Your task to perform on an android device: Clear the cart on costco.com. Search for "dell xps" on costco.com, select the first entry, and add it to the cart. Image 0: 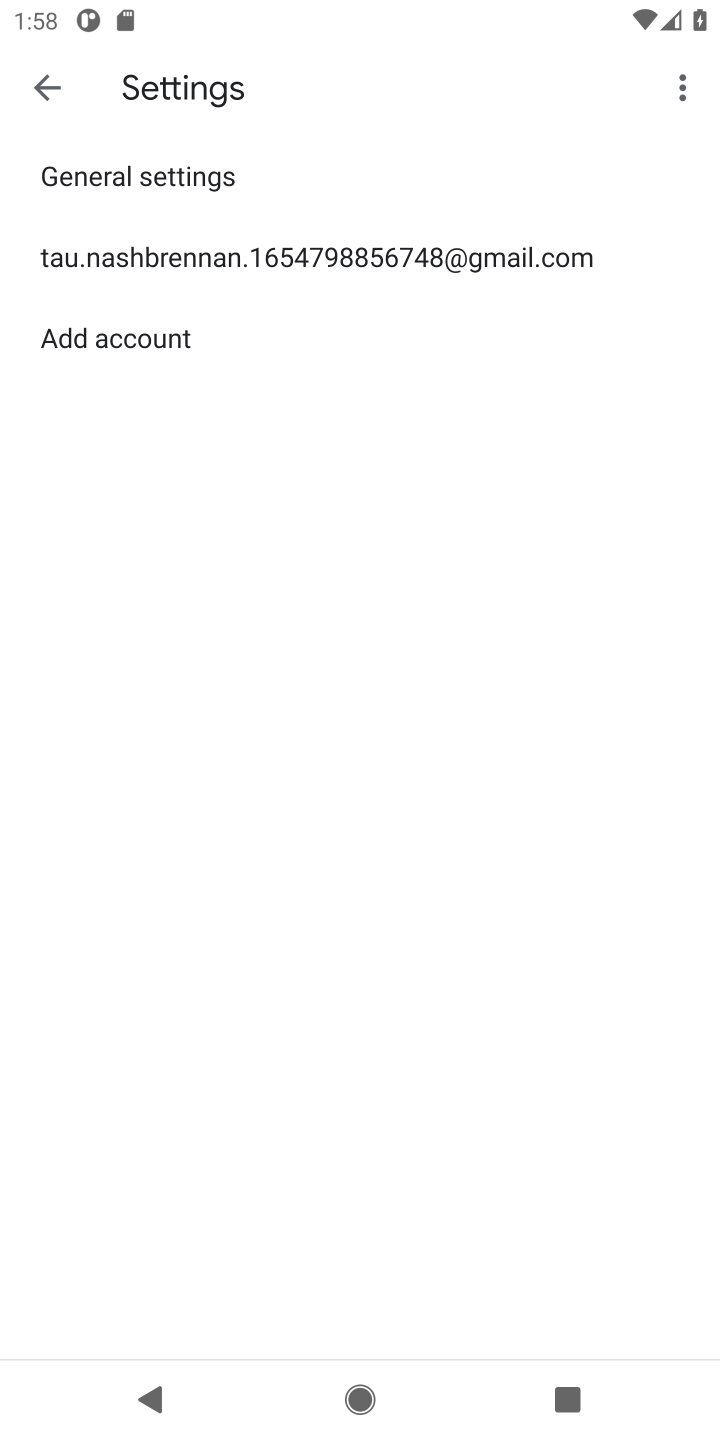
Step 0: press home button
Your task to perform on an android device: Clear the cart on costco.com. Search for "dell xps" on costco.com, select the first entry, and add it to the cart. Image 1: 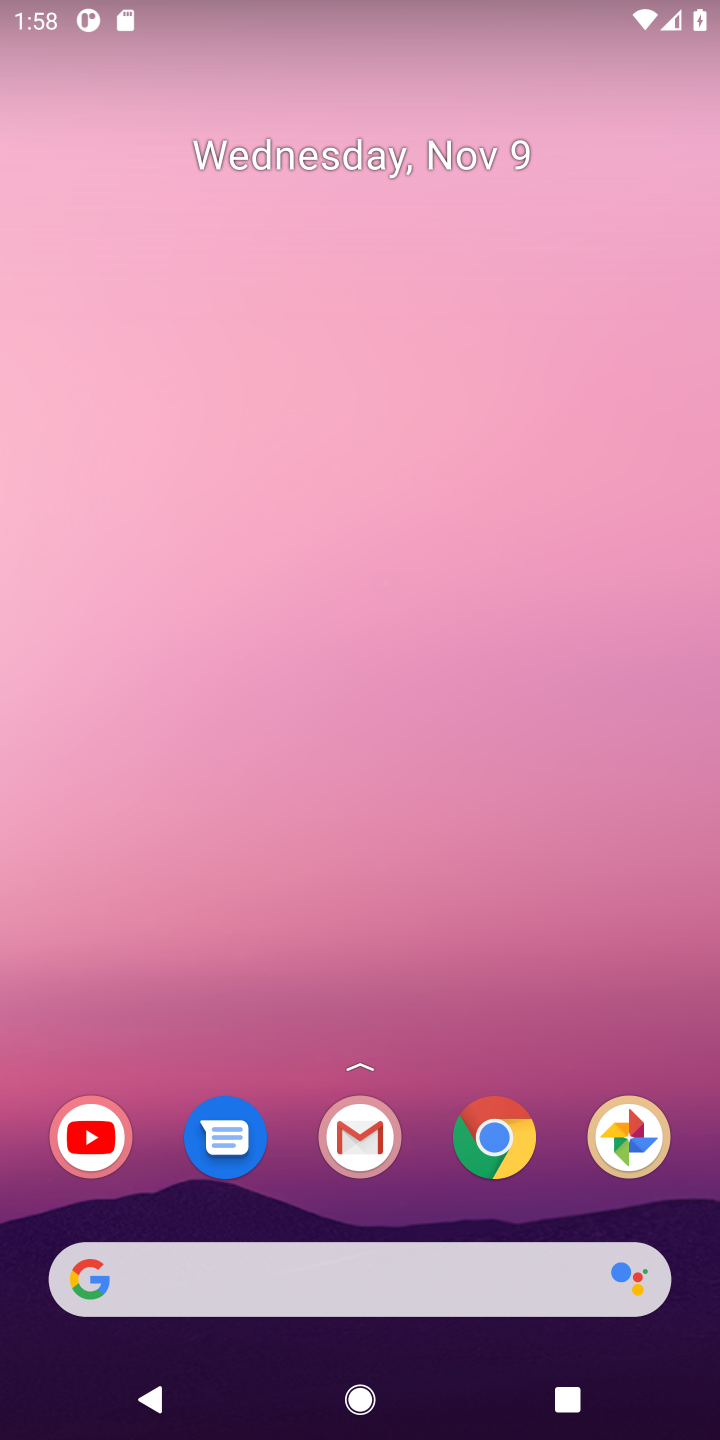
Step 1: drag from (204, 923) to (202, 433)
Your task to perform on an android device: Clear the cart on costco.com. Search for "dell xps" on costco.com, select the first entry, and add it to the cart. Image 2: 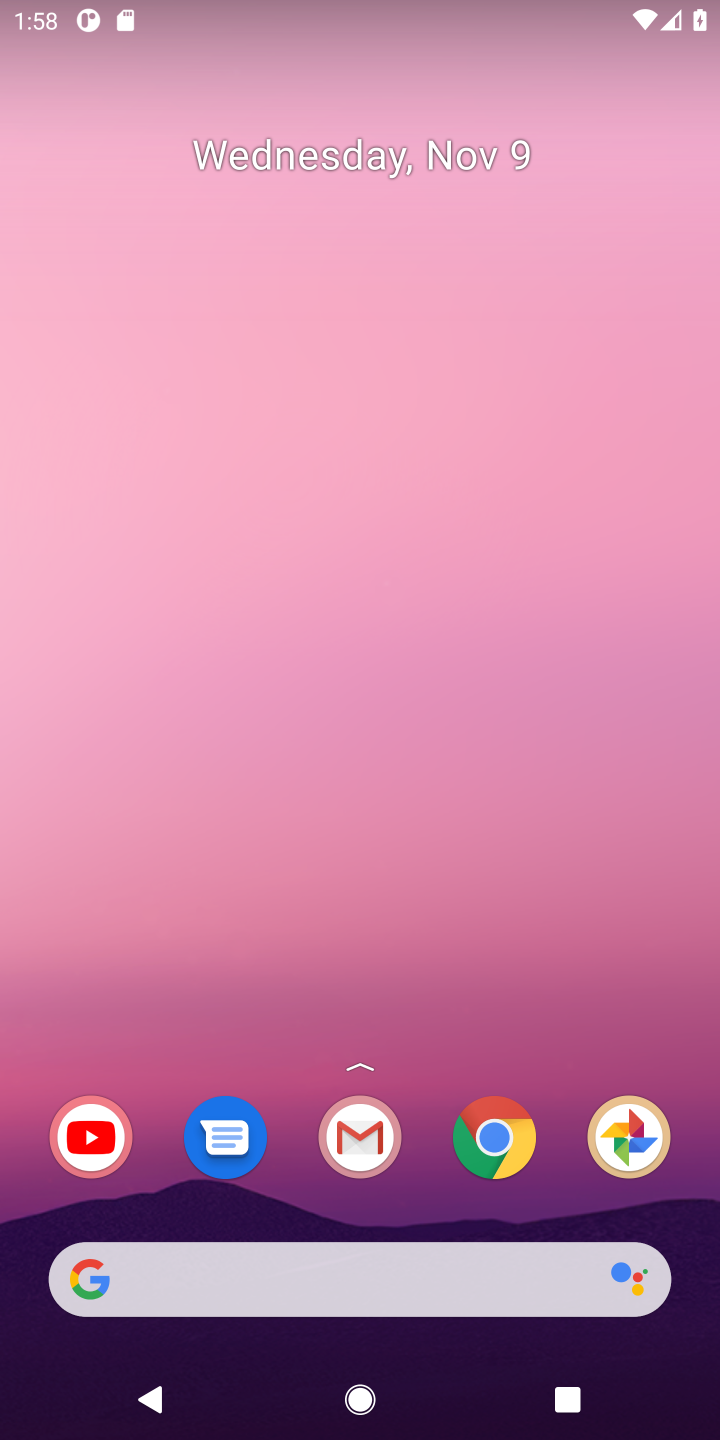
Step 2: click (513, 1110)
Your task to perform on an android device: Clear the cart on costco.com. Search for "dell xps" on costco.com, select the first entry, and add it to the cart. Image 3: 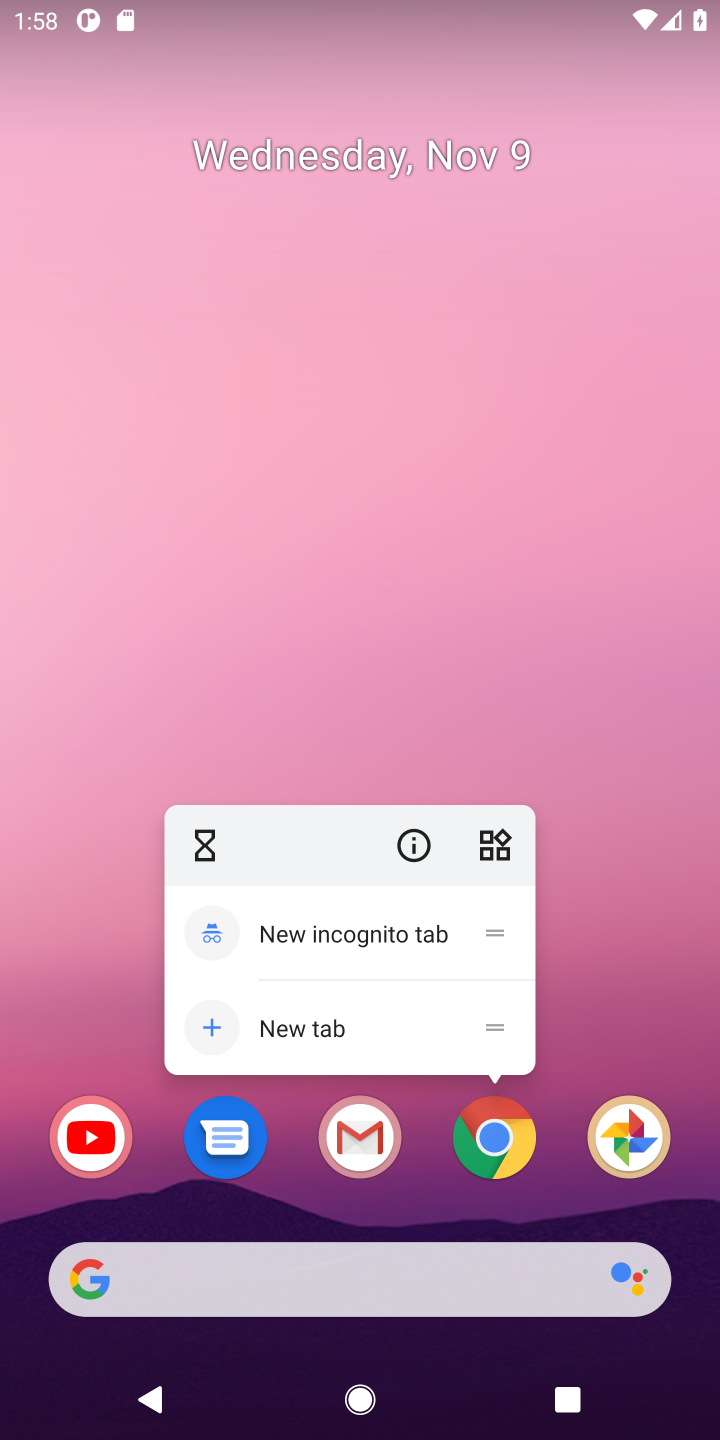
Step 3: click (512, 1095)
Your task to perform on an android device: Clear the cart on costco.com. Search for "dell xps" on costco.com, select the first entry, and add it to the cart. Image 4: 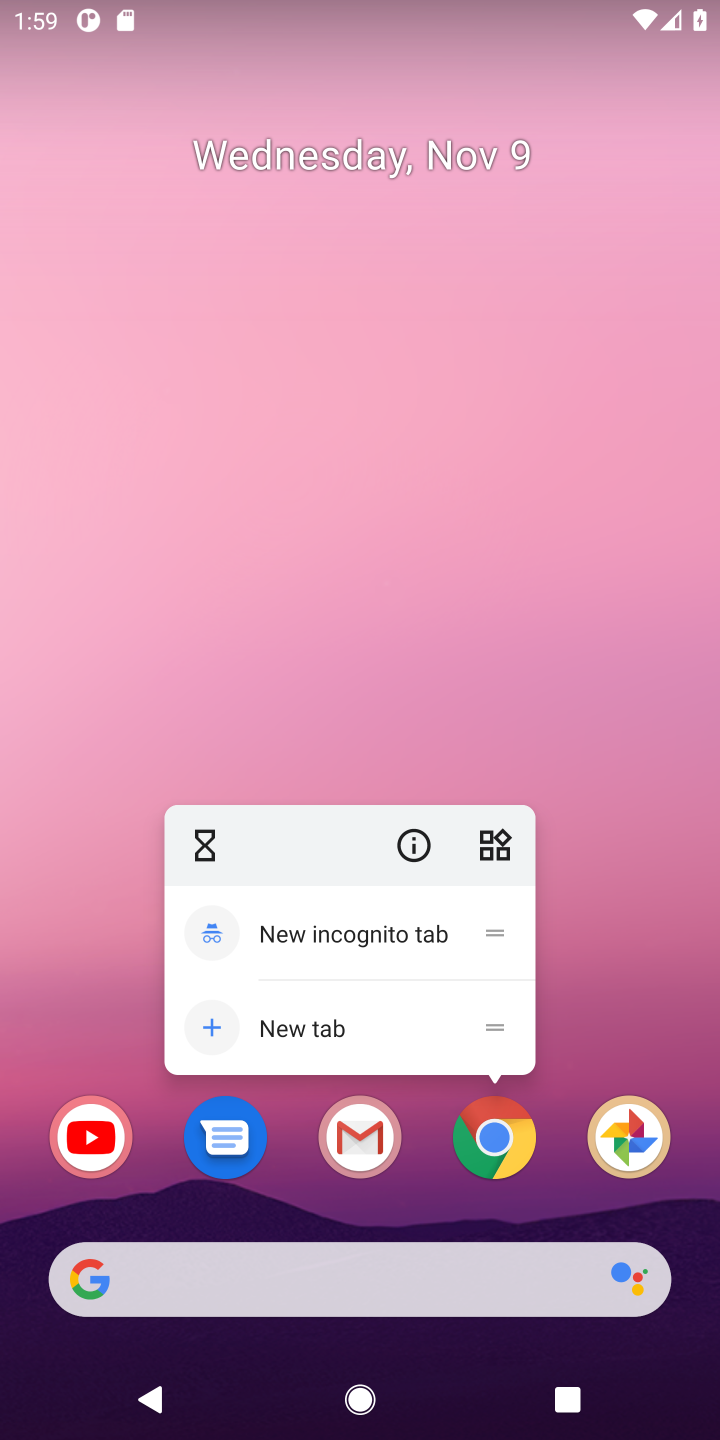
Step 4: click (513, 1155)
Your task to perform on an android device: Clear the cart on costco.com. Search for "dell xps" on costco.com, select the first entry, and add it to the cart. Image 5: 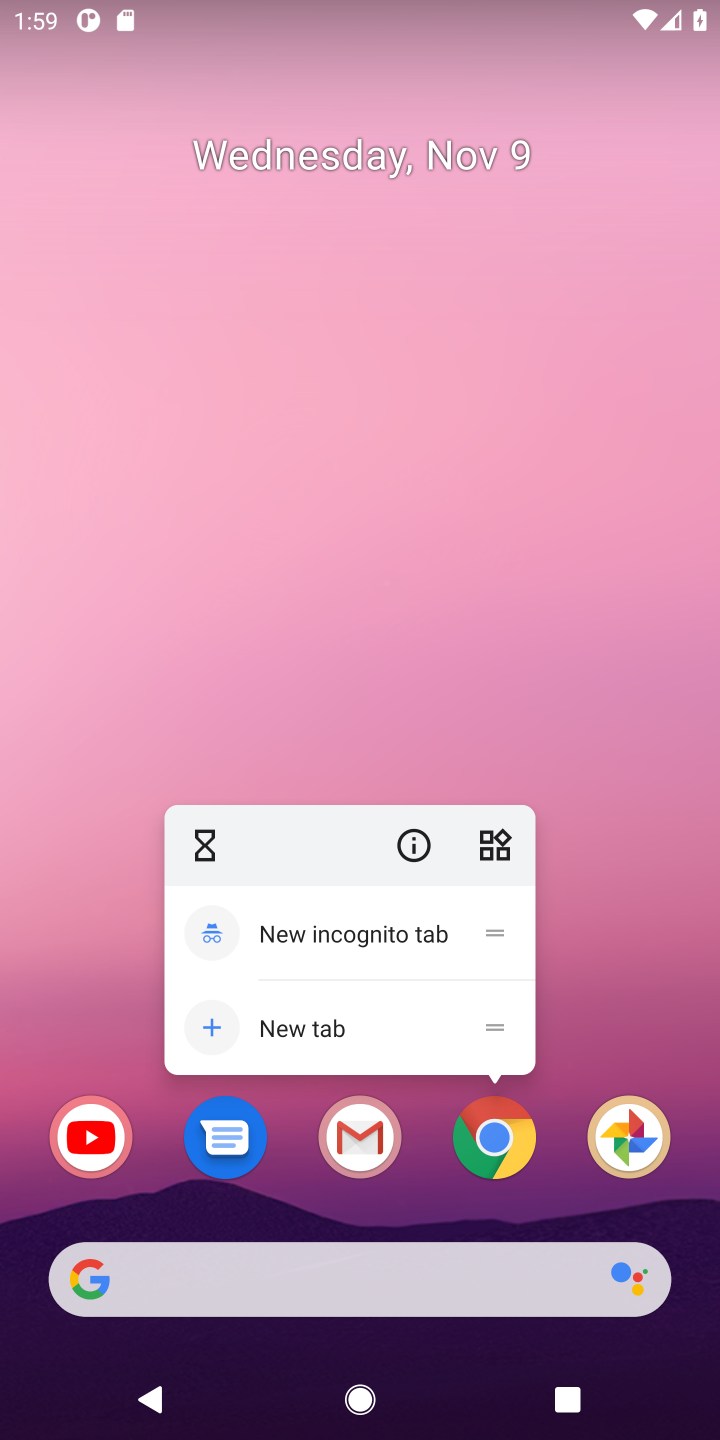
Step 5: click (513, 1151)
Your task to perform on an android device: Clear the cart on costco.com. Search for "dell xps" on costco.com, select the first entry, and add it to the cart. Image 6: 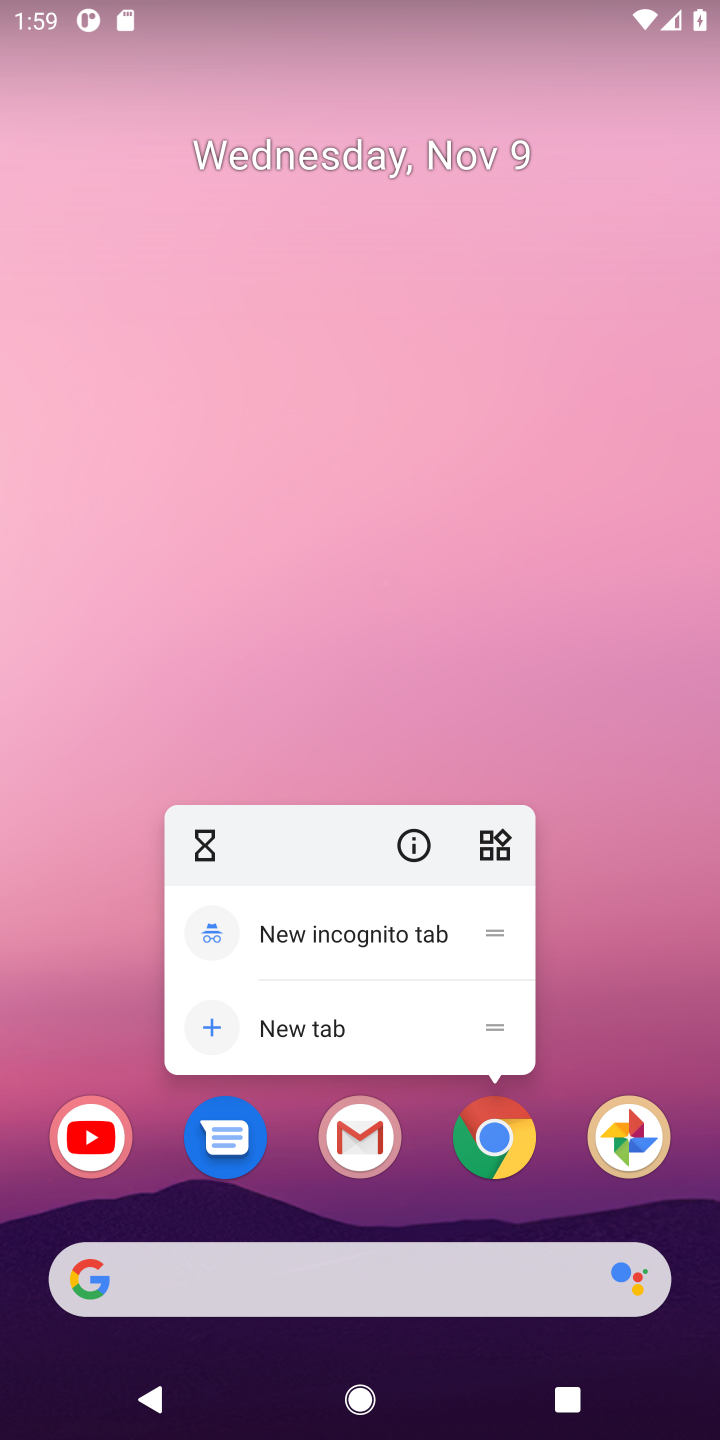
Step 6: click (486, 1150)
Your task to perform on an android device: Clear the cart on costco.com. Search for "dell xps" on costco.com, select the first entry, and add it to the cart. Image 7: 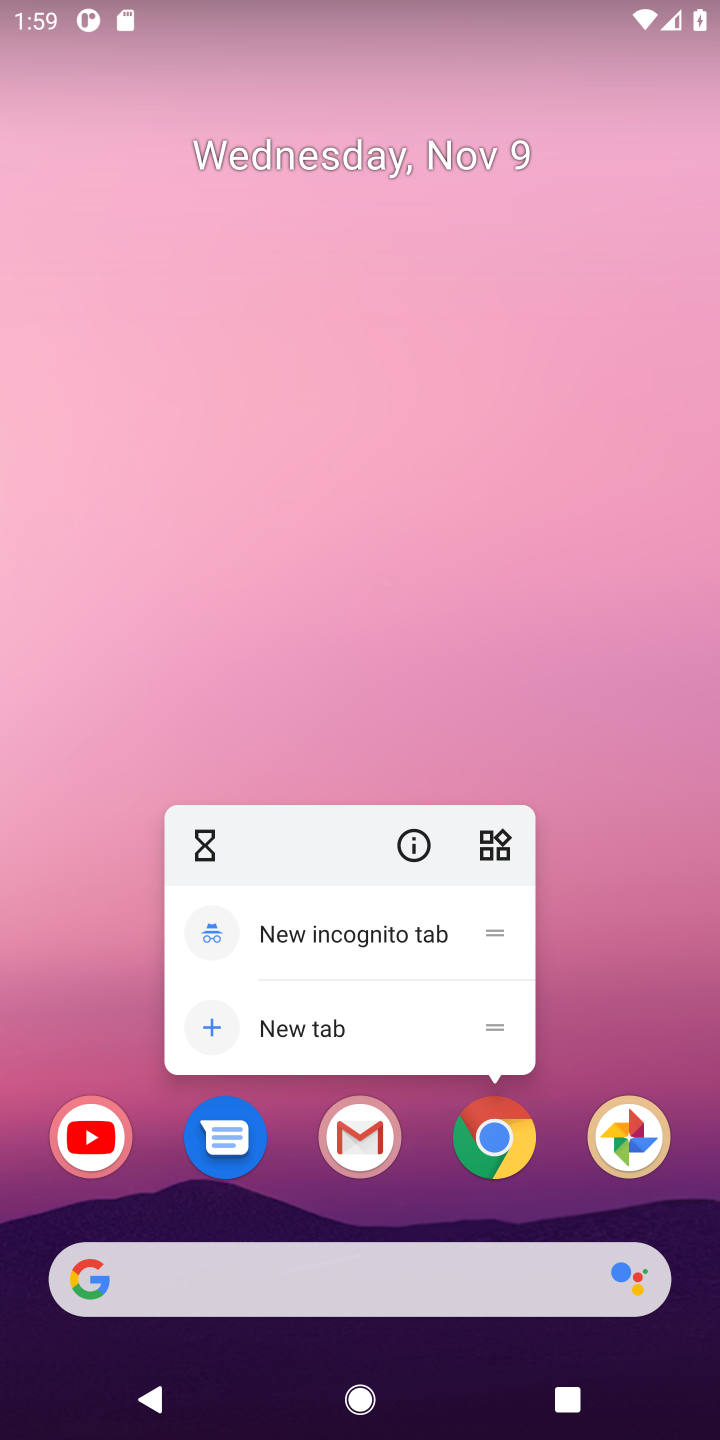
Step 7: click (486, 1148)
Your task to perform on an android device: Clear the cart on costco.com. Search for "dell xps" on costco.com, select the first entry, and add it to the cart. Image 8: 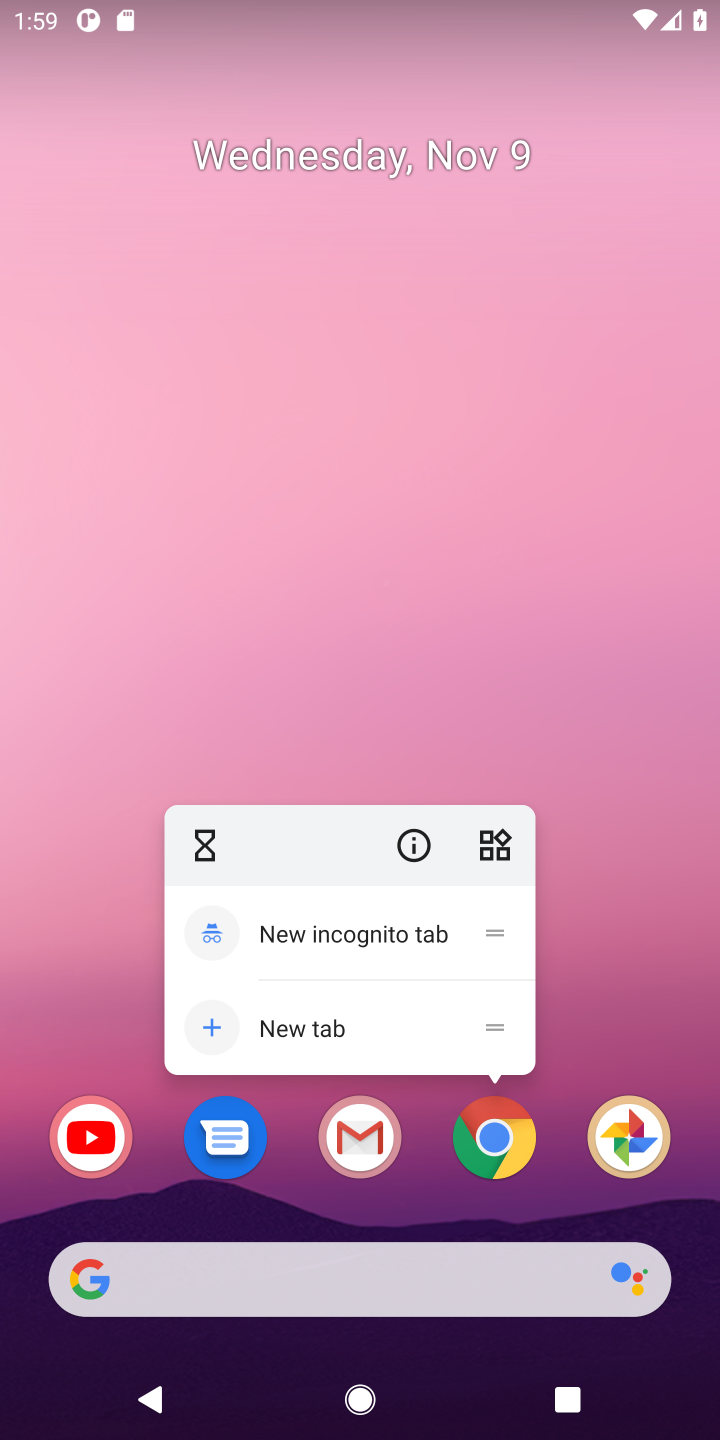
Step 8: click (486, 1148)
Your task to perform on an android device: Clear the cart on costco.com. Search for "dell xps" on costco.com, select the first entry, and add it to the cart. Image 9: 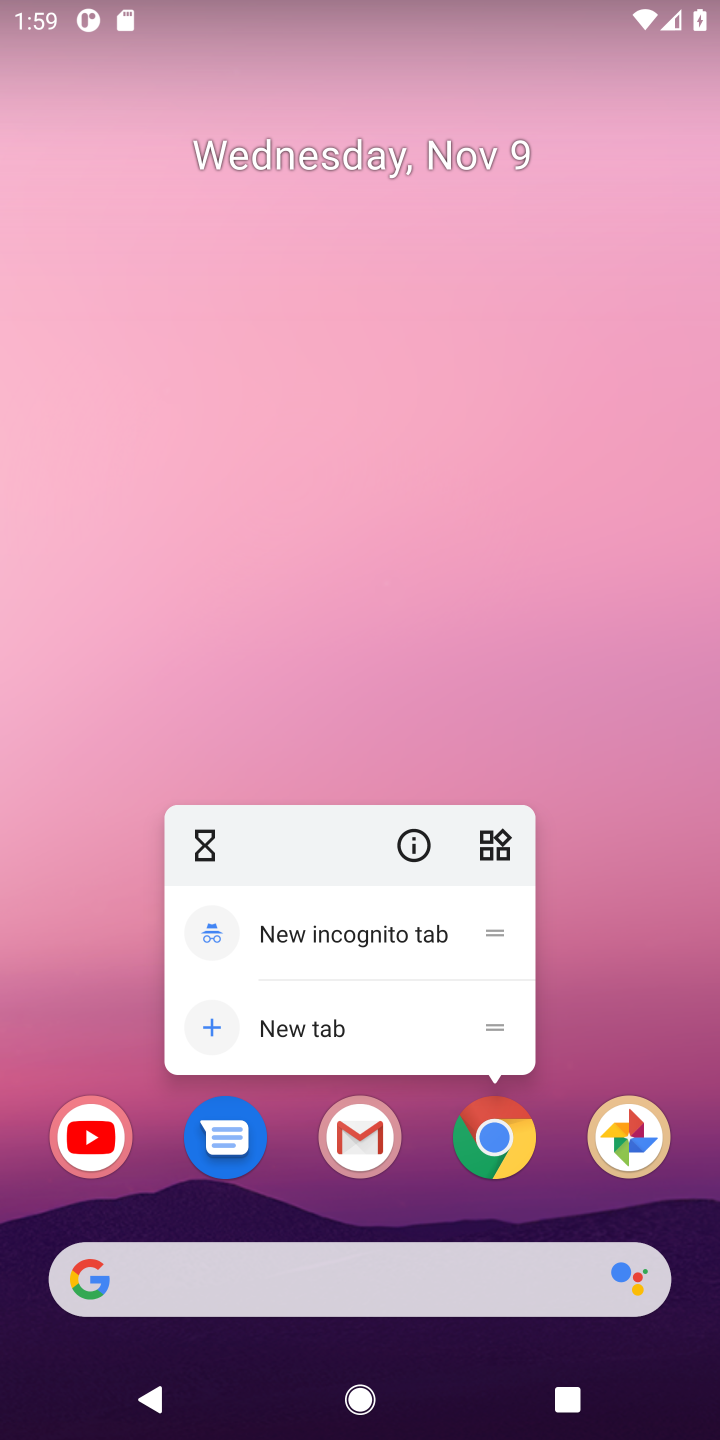
Step 9: click (486, 1148)
Your task to perform on an android device: Clear the cart on costco.com. Search for "dell xps" on costco.com, select the first entry, and add it to the cart. Image 10: 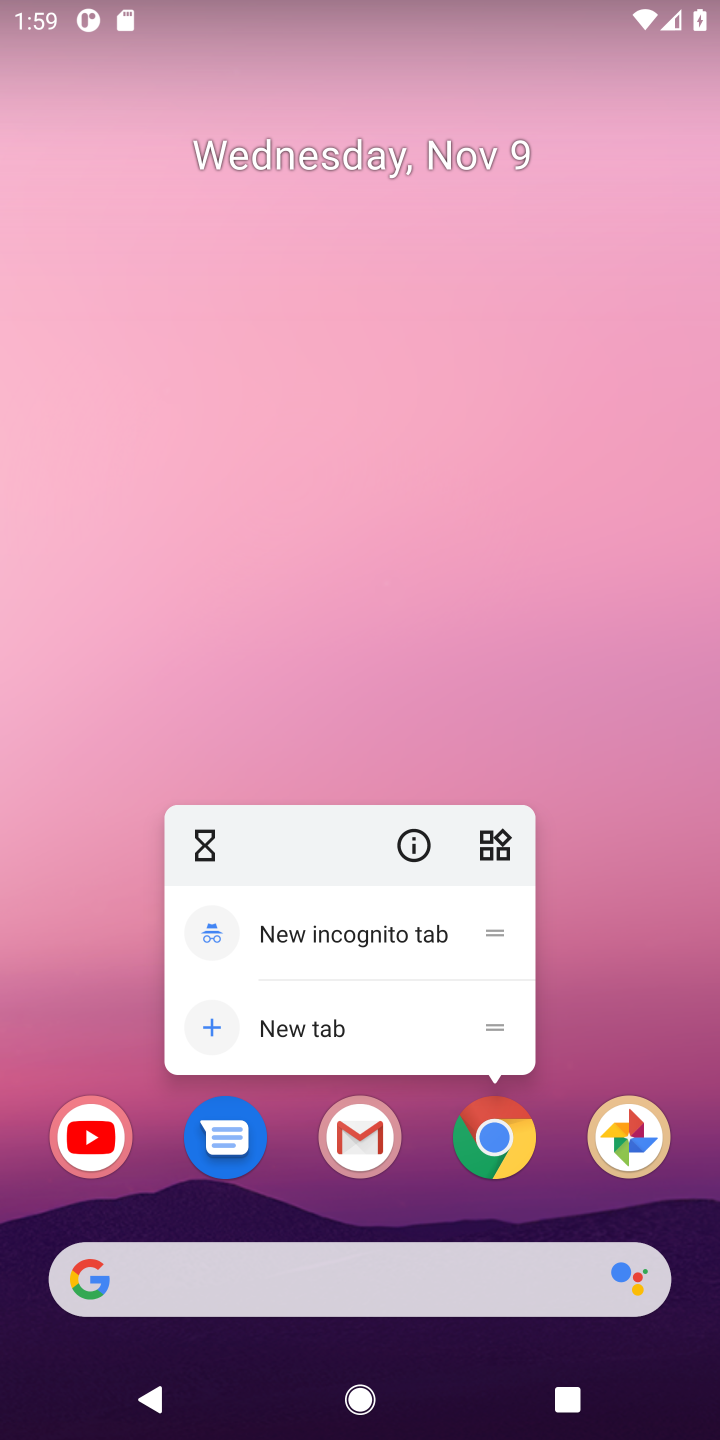
Step 10: click (486, 1148)
Your task to perform on an android device: Clear the cart on costco.com. Search for "dell xps" on costco.com, select the first entry, and add it to the cart. Image 11: 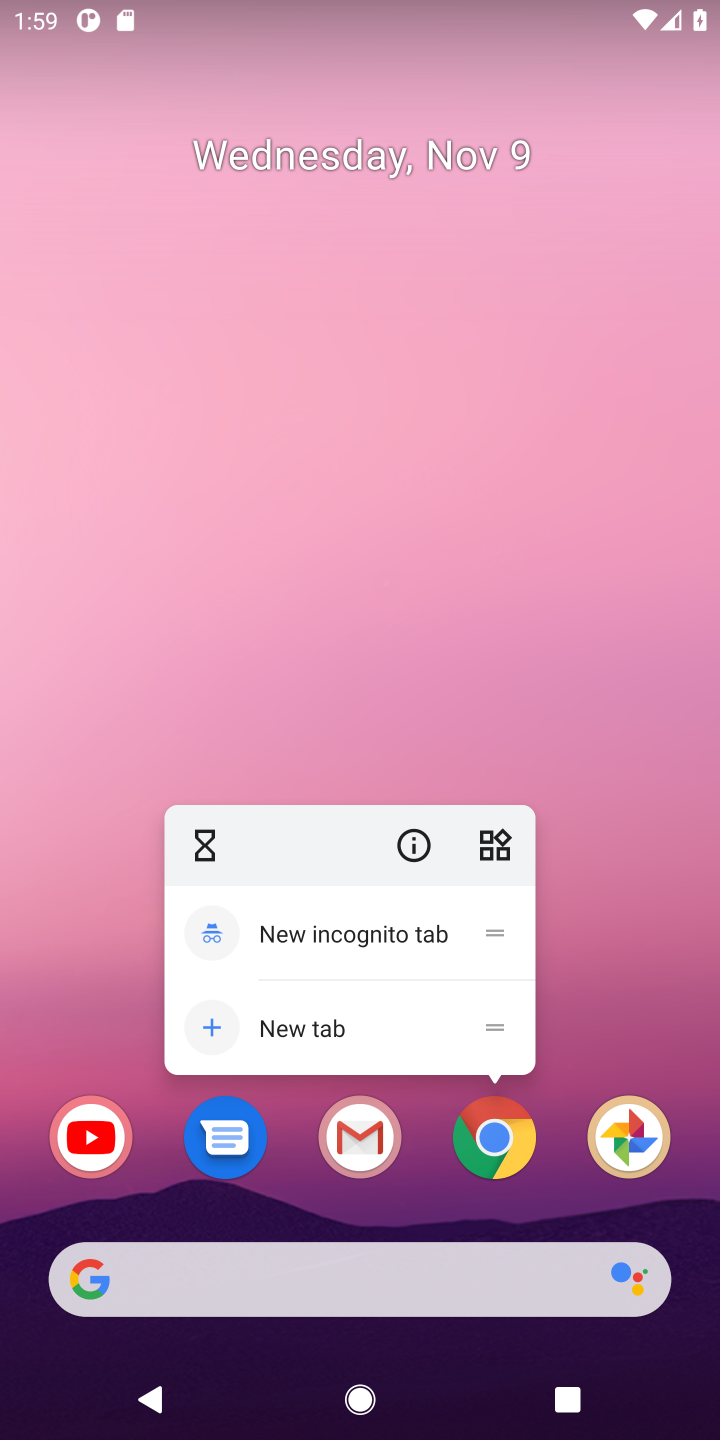
Step 11: click (486, 1148)
Your task to perform on an android device: Clear the cart on costco.com. Search for "dell xps" on costco.com, select the first entry, and add it to the cart. Image 12: 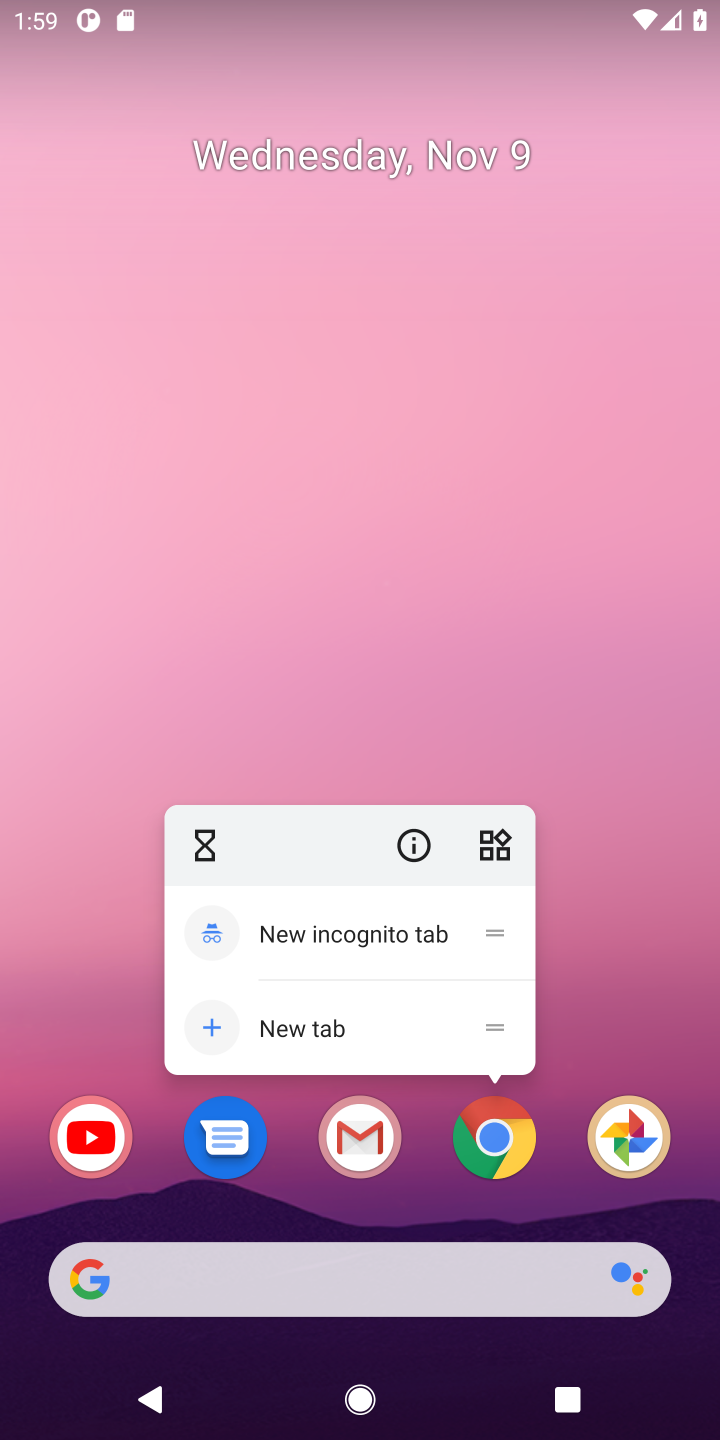
Step 12: drag from (518, 1003) to (523, 309)
Your task to perform on an android device: Clear the cart on costco.com. Search for "dell xps" on costco.com, select the first entry, and add it to the cart. Image 13: 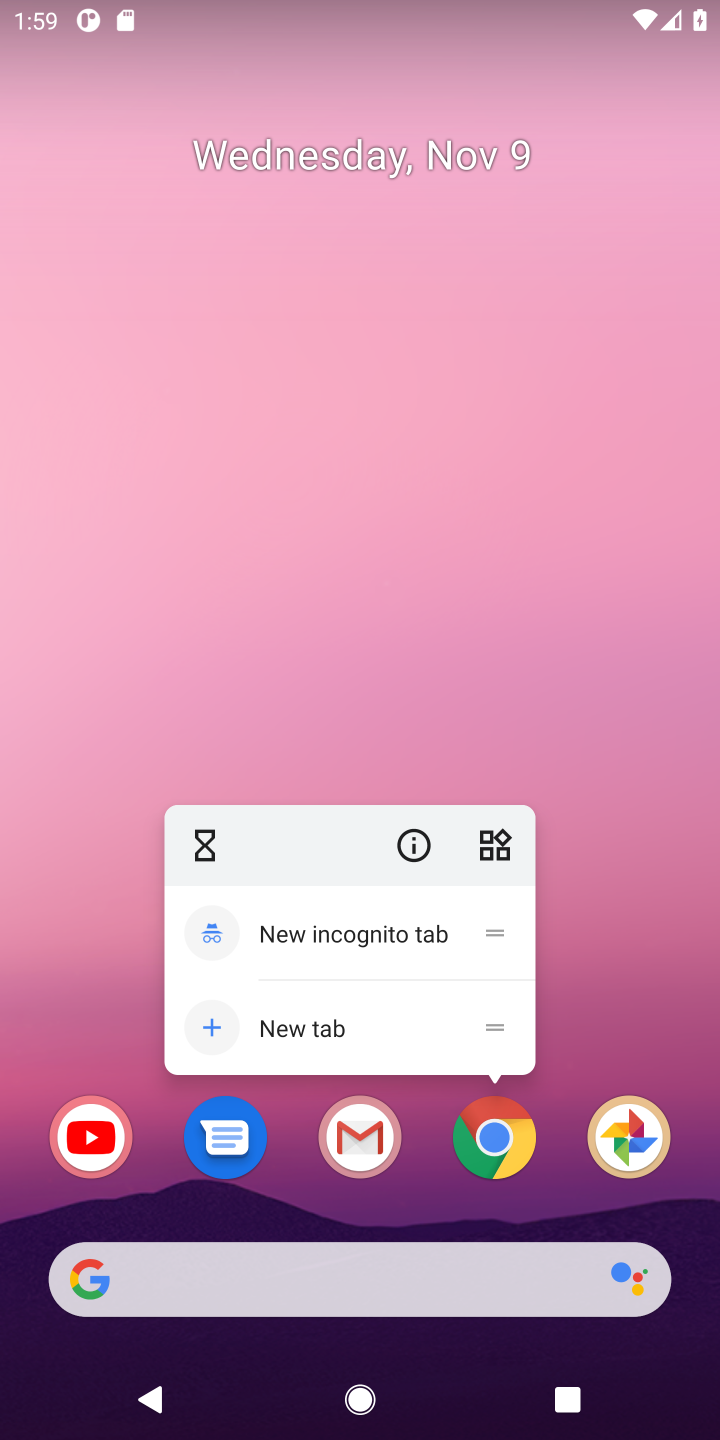
Step 13: click (499, 480)
Your task to perform on an android device: Clear the cart on costco.com. Search for "dell xps" on costco.com, select the first entry, and add it to the cart. Image 14: 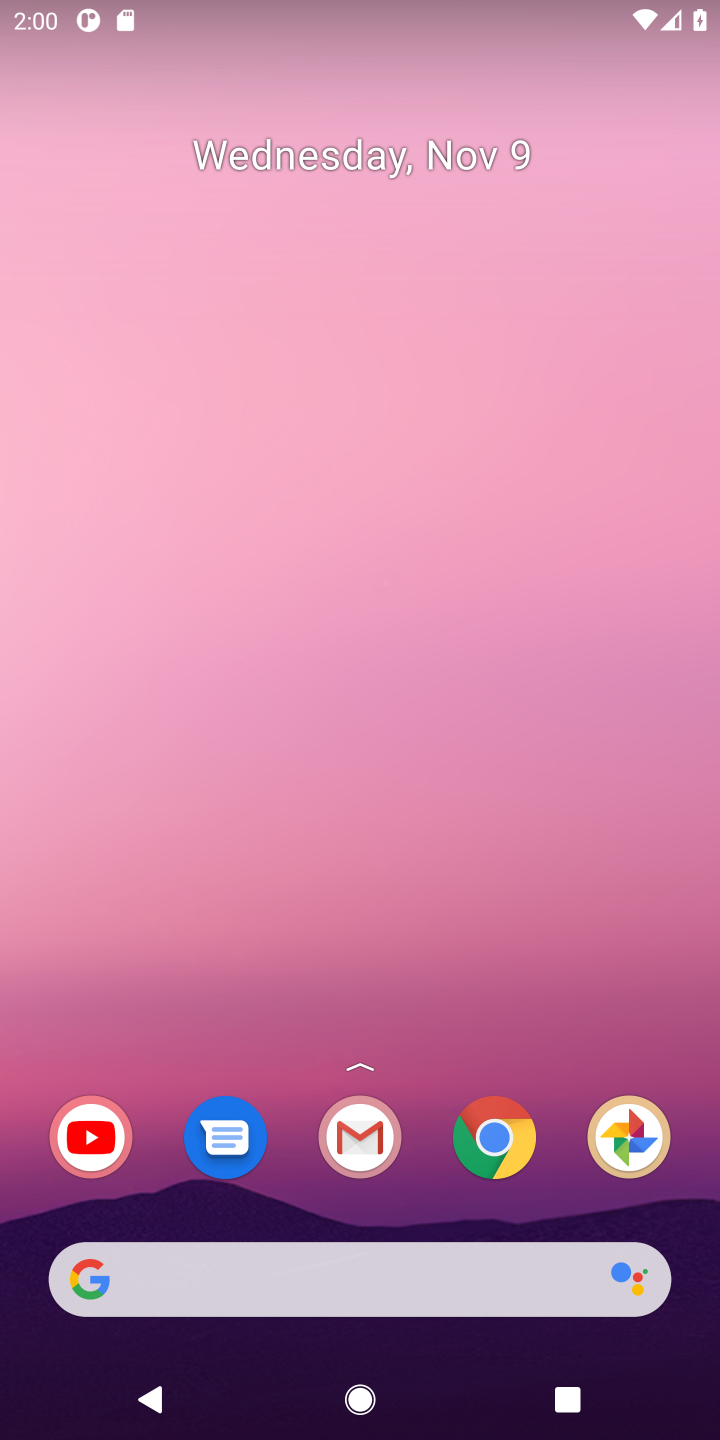
Step 14: drag from (402, 1107) to (403, 133)
Your task to perform on an android device: Clear the cart on costco.com. Search for "dell xps" on costco.com, select the first entry, and add it to the cart. Image 15: 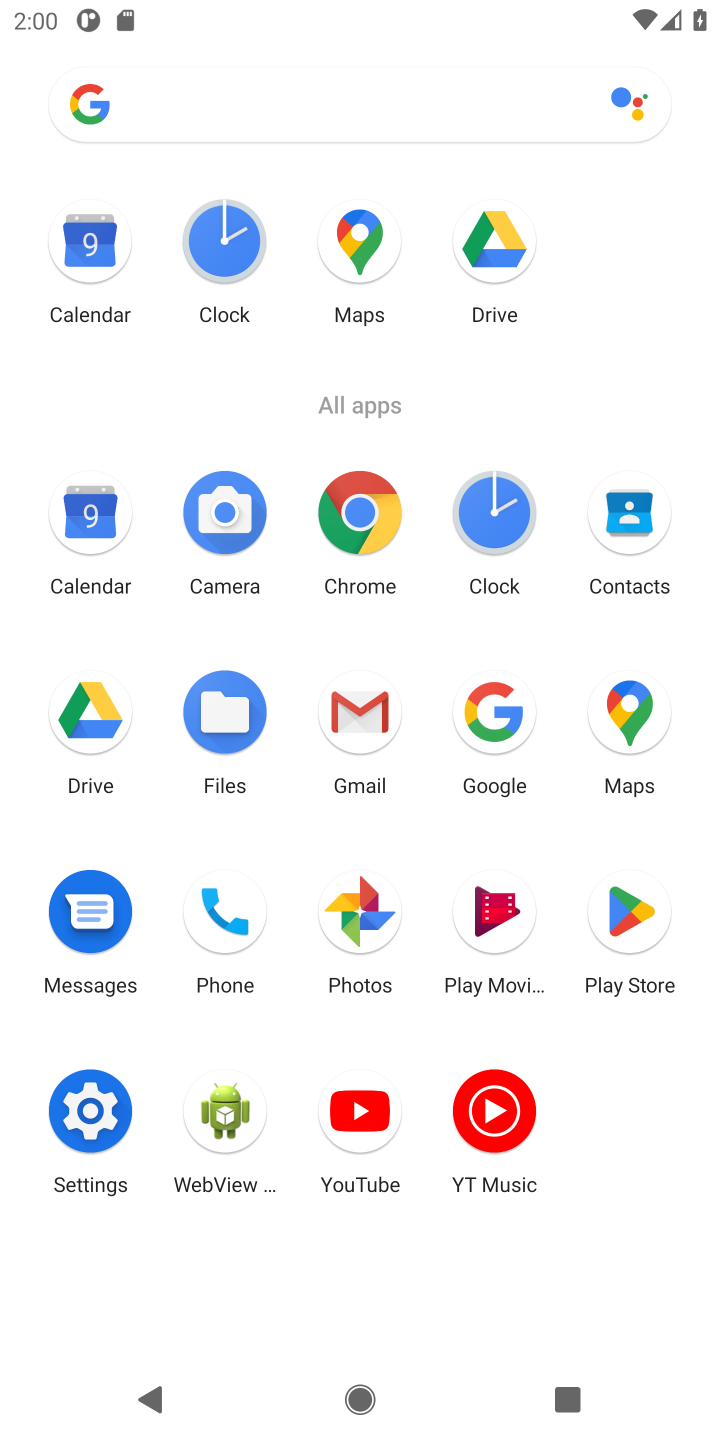
Step 15: click (355, 514)
Your task to perform on an android device: Clear the cart on costco.com. Search for "dell xps" on costco.com, select the first entry, and add it to the cart. Image 16: 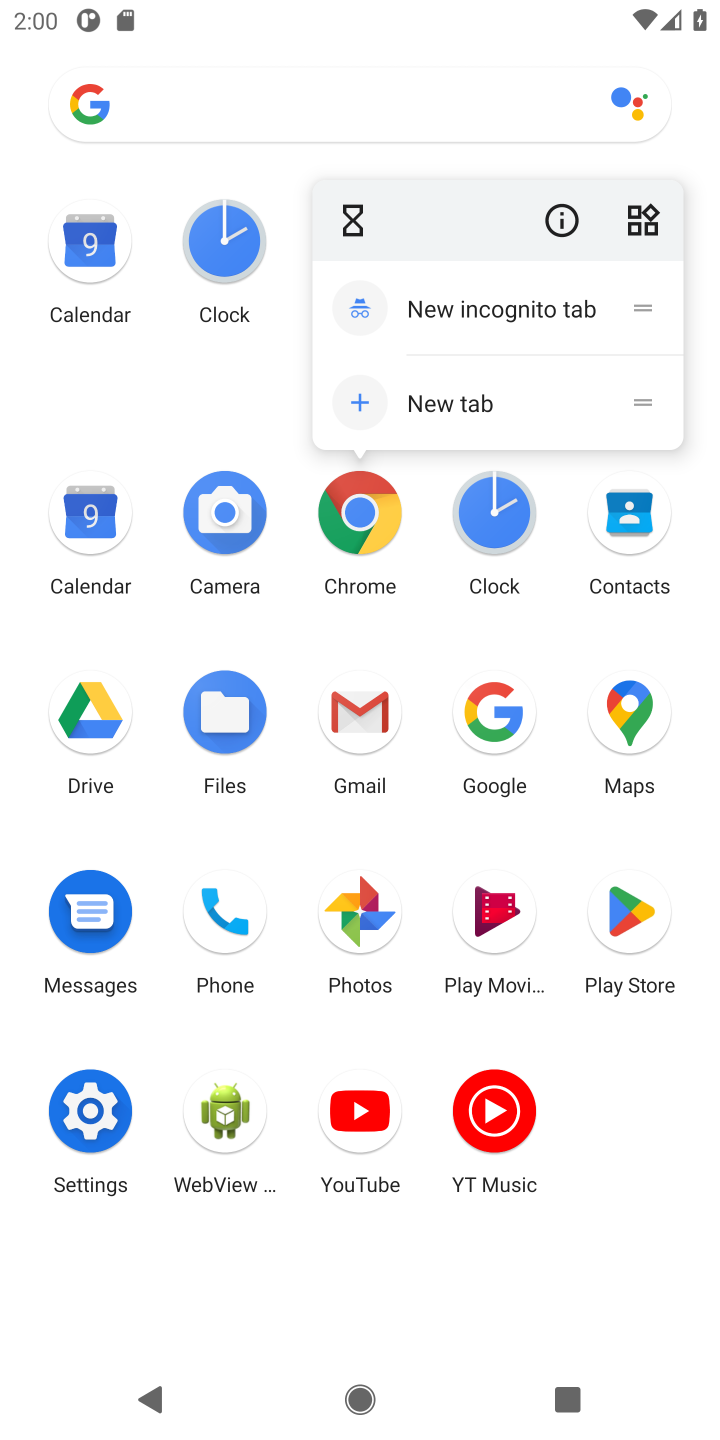
Step 16: click (354, 509)
Your task to perform on an android device: Clear the cart on costco.com. Search for "dell xps" on costco.com, select the first entry, and add it to the cart. Image 17: 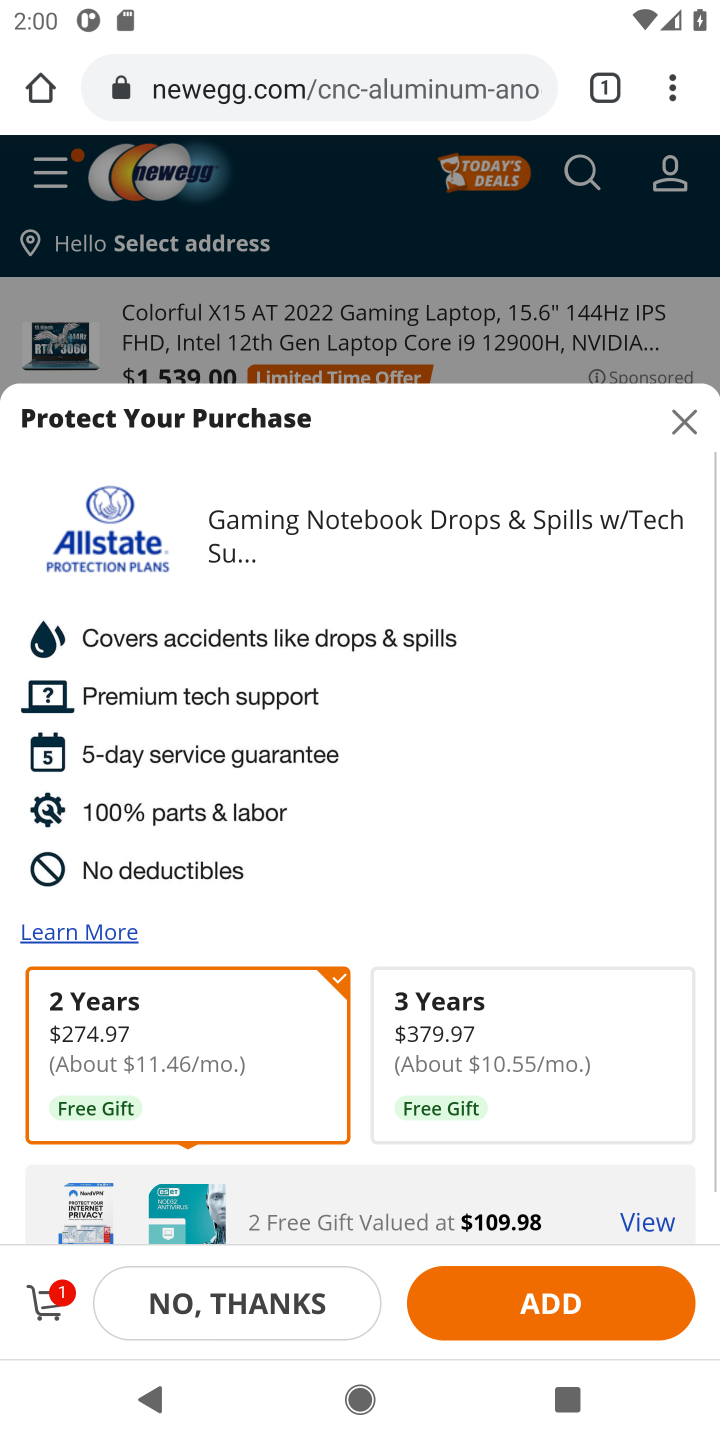
Step 17: click (214, 99)
Your task to perform on an android device: Clear the cart on costco.com. Search for "dell xps" on costco.com, select the first entry, and add it to the cart. Image 18: 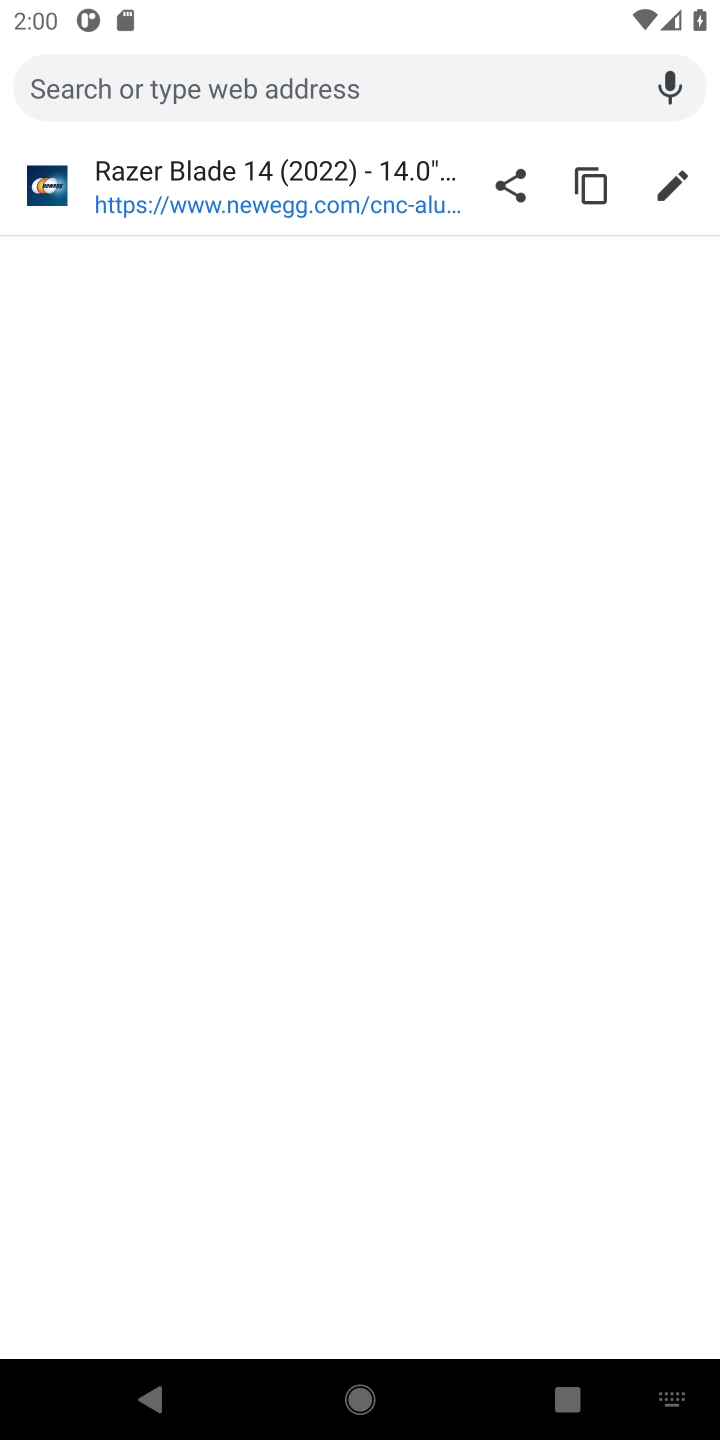
Step 18: type "costco.com"
Your task to perform on an android device: Clear the cart on costco.com. Search for "dell xps" on costco.com, select the first entry, and add it to the cart. Image 19: 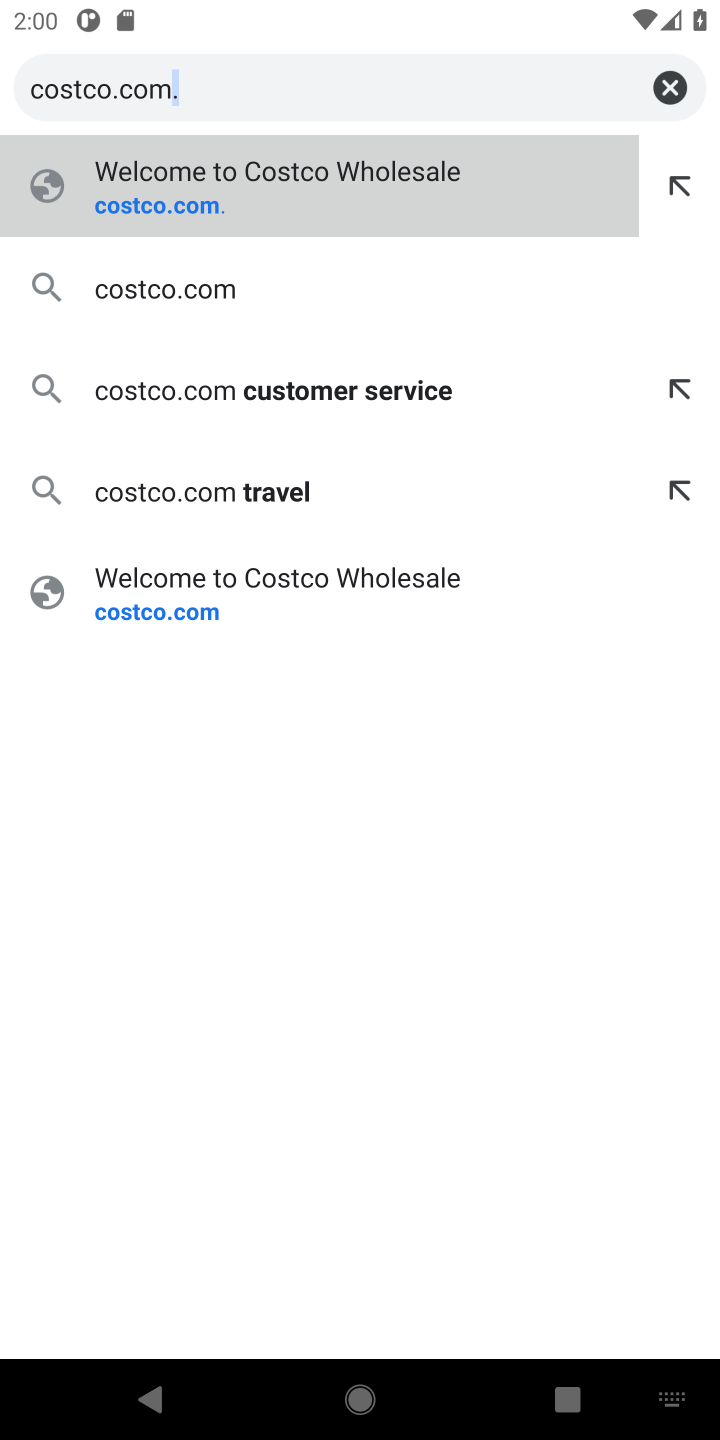
Step 19: press enter
Your task to perform on an android device: Clear the cart on costco.com. Search for "dell xps" on costco.com, select the first entry, and add it to the cart. Image 20: 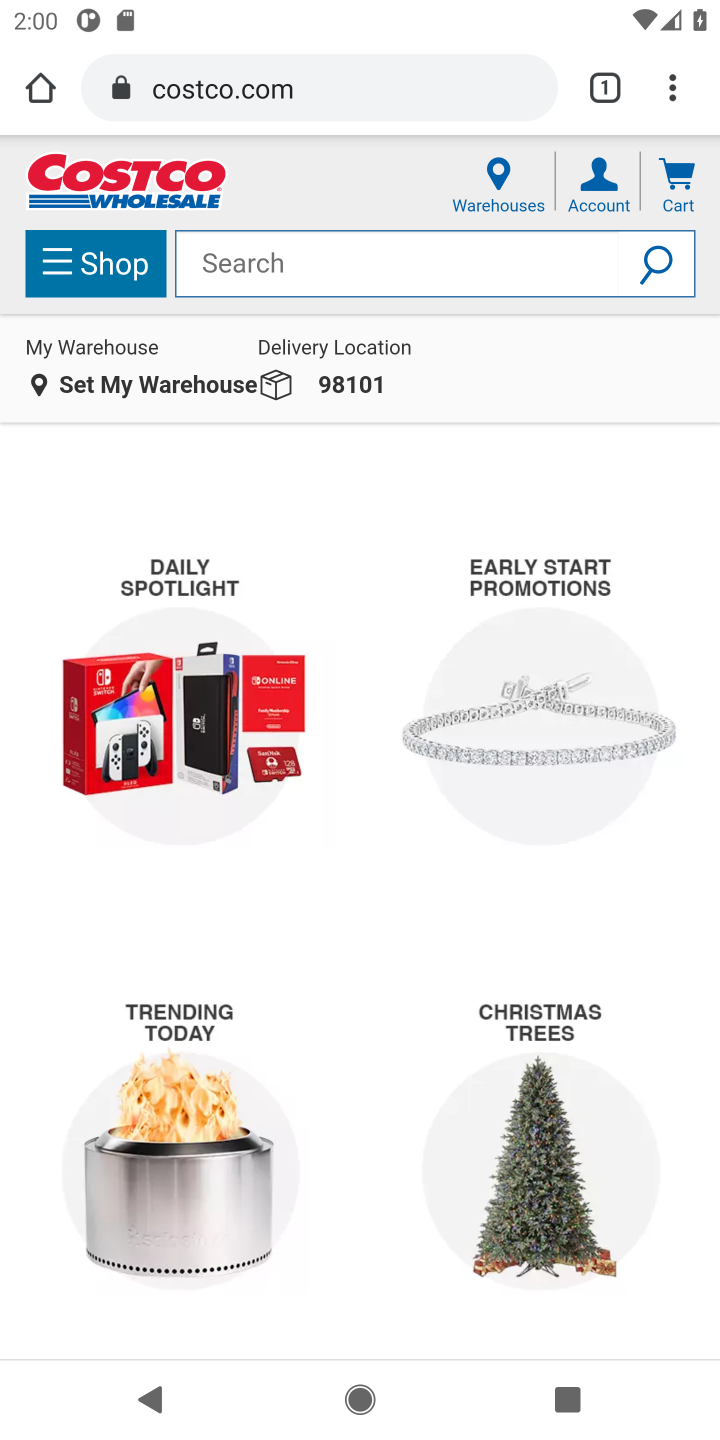
Step 20: click (195, 278)
Your task to perform on an android device: Clear the cart on costco.com. Search for "dell xps" on costco.com, select the first entry, and add it to the cart. Image 21: 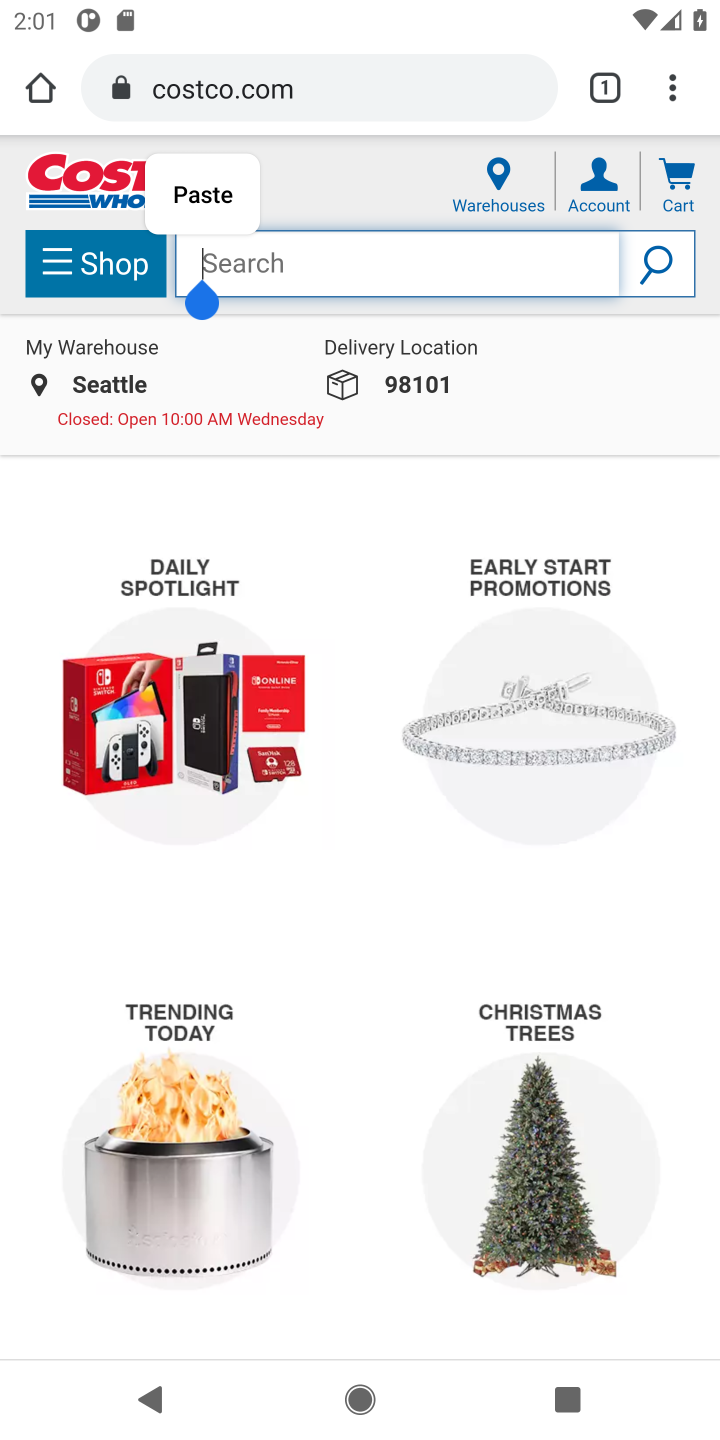
Step 21: type "dell xps"
Your task to perform on an android device: Clear the cart on costco.com. Search for "dell xps" on costco.com, select the first entry, and add it to the cart. Image 22: 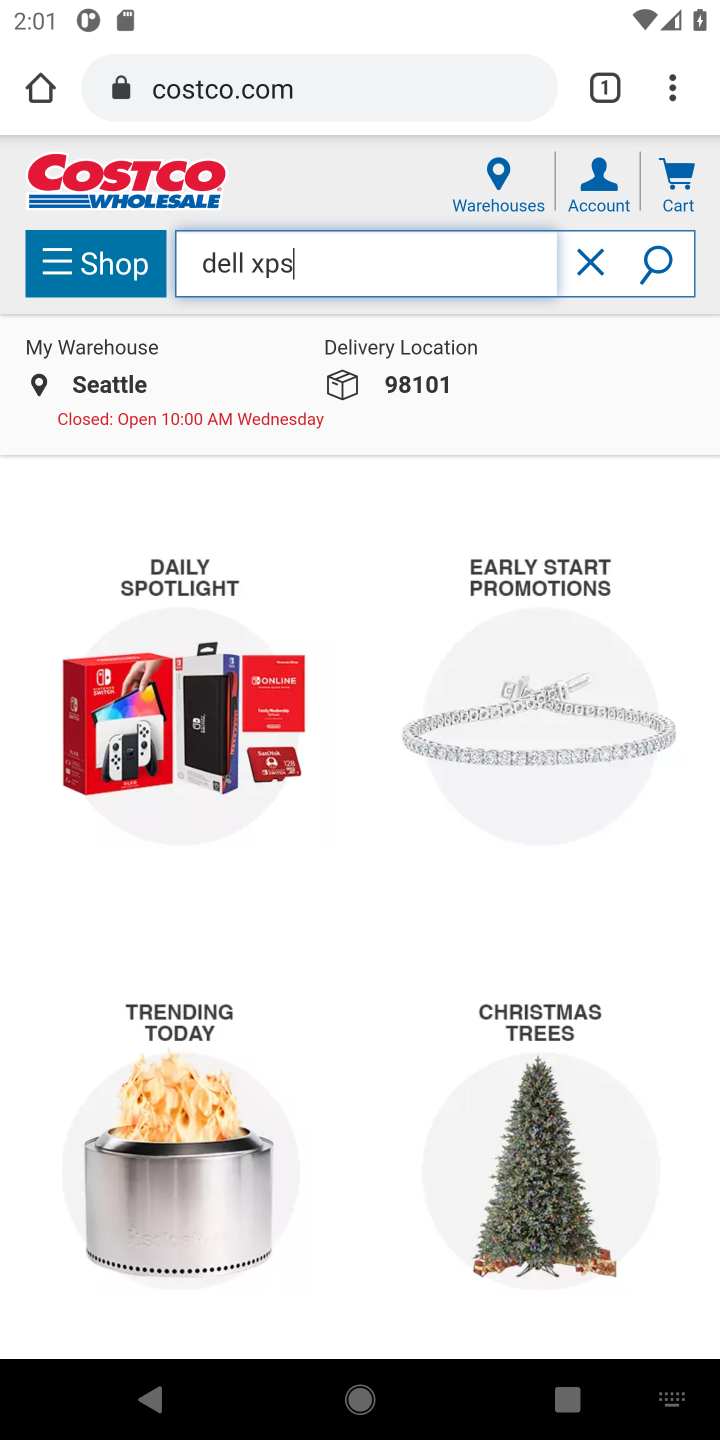
Step 22: press enter
Your task to perform on an android device: Clear the cart on costco.com. Search for "dell xps" on costco.com, select the first entry, and add it to the cart. Image 23: 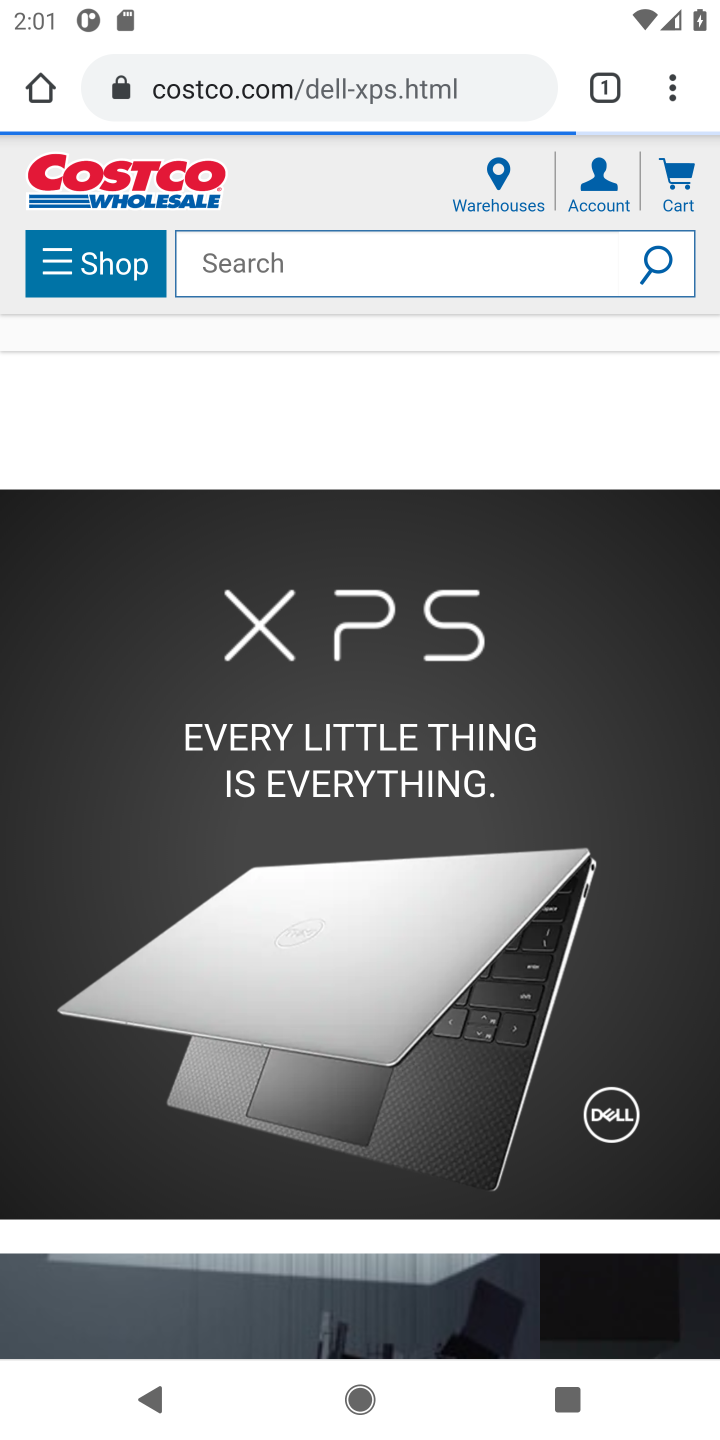
Step 23: drag from (391, 976) to (359, 342)
Your task to perform on an android device: Clear the cart on costco.com. Search for "dell xps" on costco.com, select the first entry, and add it to the cart. Image 24: 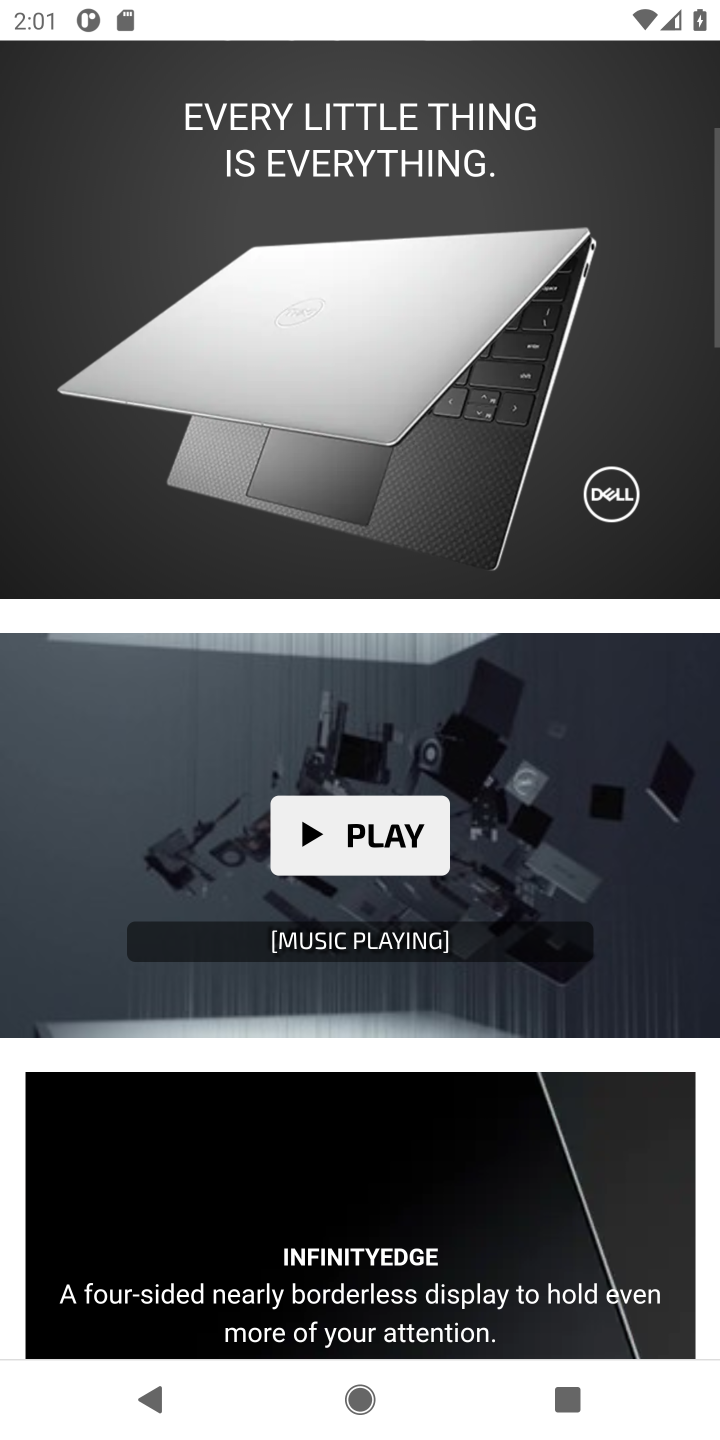
Step 24: drag from (282, 768) to (312, 423)
Your task to perform on an android device: Clear the cart on costco.com. Search for "dell xps" on costco.com, select the first entry, and add it to the cart. Image 25: 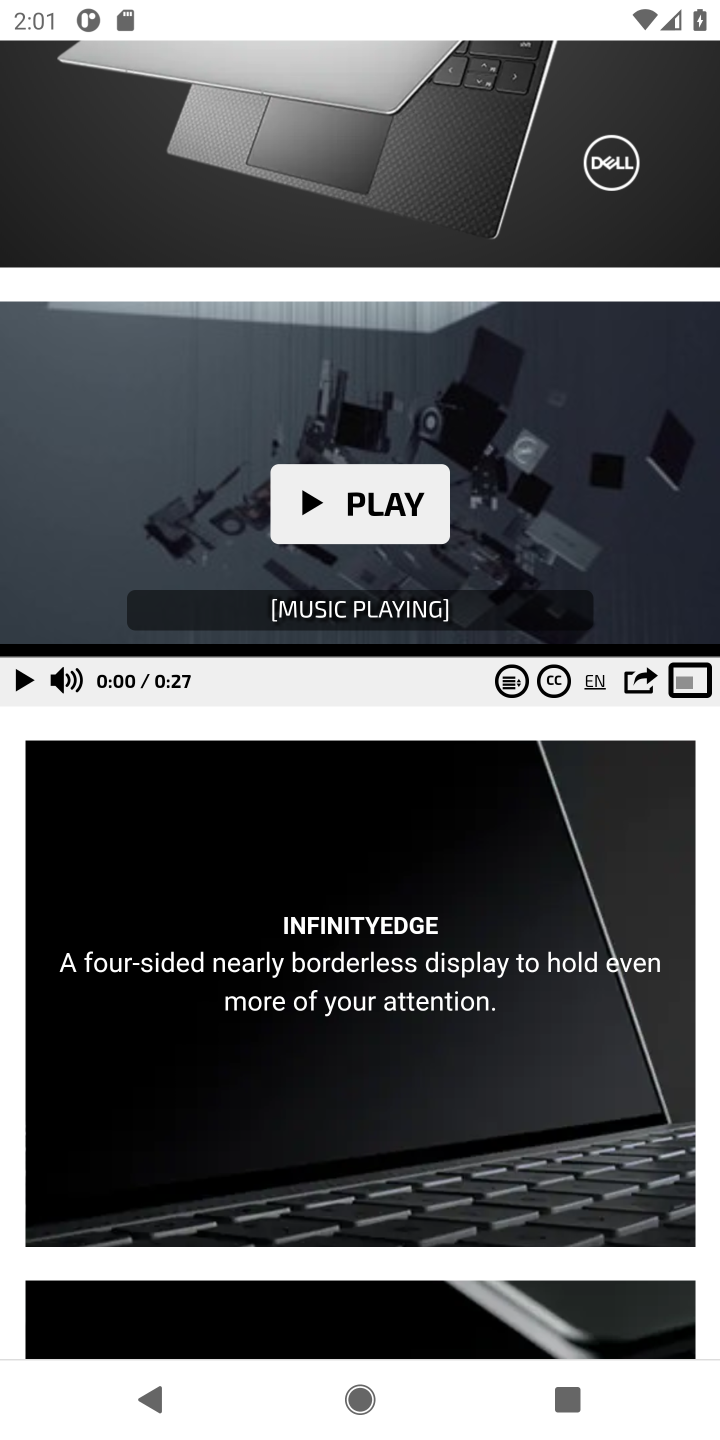
Step 25: drag from (370, 550) to (361, 191)
Your task to perform on an android device: Clear the cart on costco.com. Search for "dell xps" on costco.com, select the first entry, and add it to the cart. Image 26: 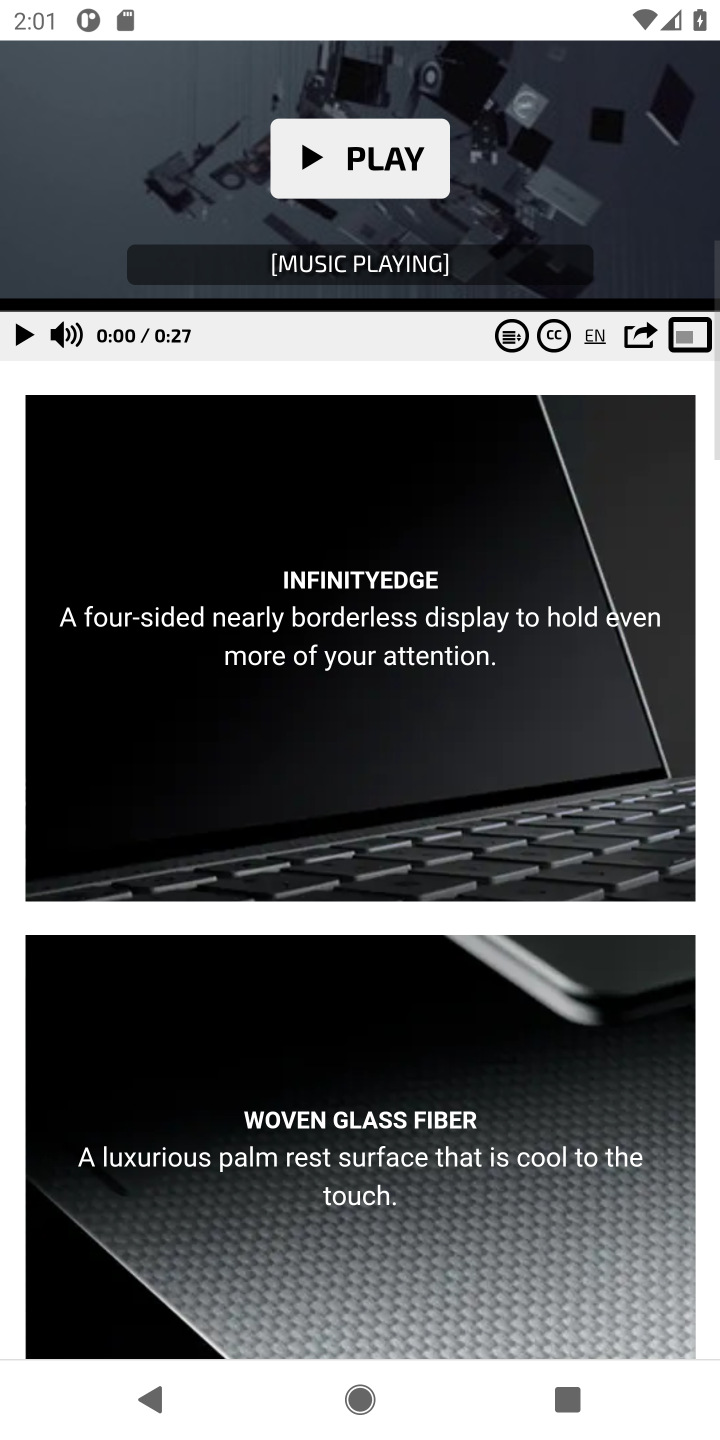
Step 26: drag from (279, 1052) to (448, 347)
Your task to perform on an android device: Clear the cart on costco.com. Search for "dell xps" on costco.com, select the first entry, and add it to the cart. Image 27: 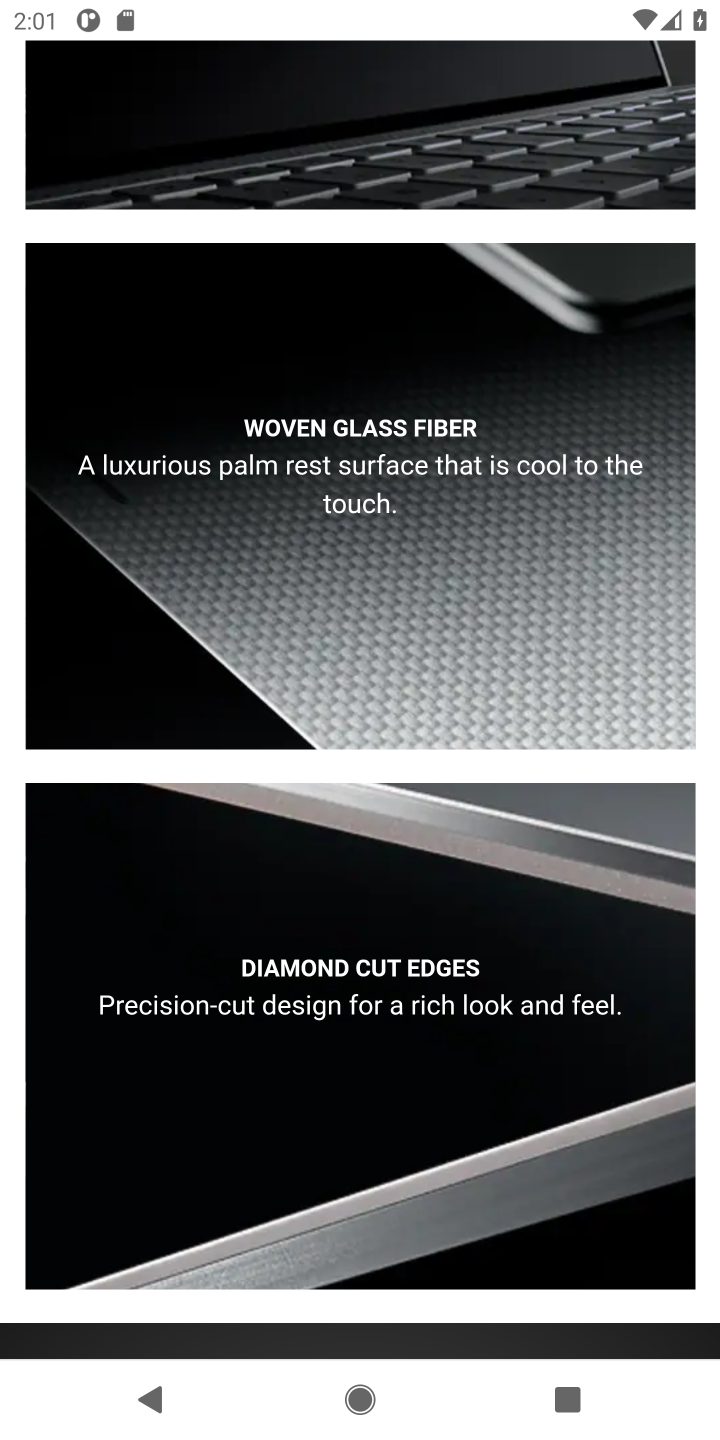
Step 27: drag from (468, 988) to (650, 311)
Your task to perform on an android device: Clear the cart on costco.com. Search for "dell xps" on costco.com, select the first entry, and add it to the cart. Image 28: 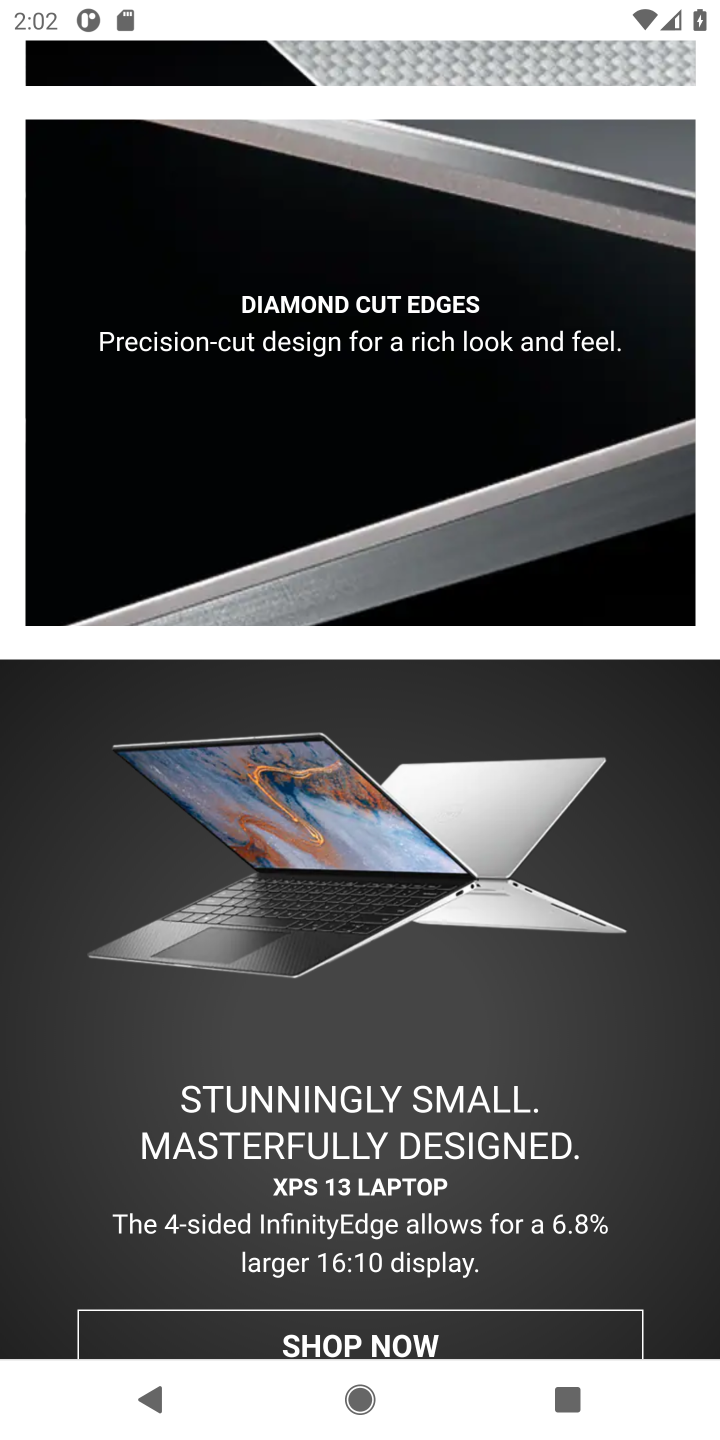
Step 28: drag from (396, 1046) to (437, 337)
Your task to perform on an android device: Clear the cart on costco.com. Search for "dell xps" on costco.com, select the first entry, and add it to the cart. Image 29: 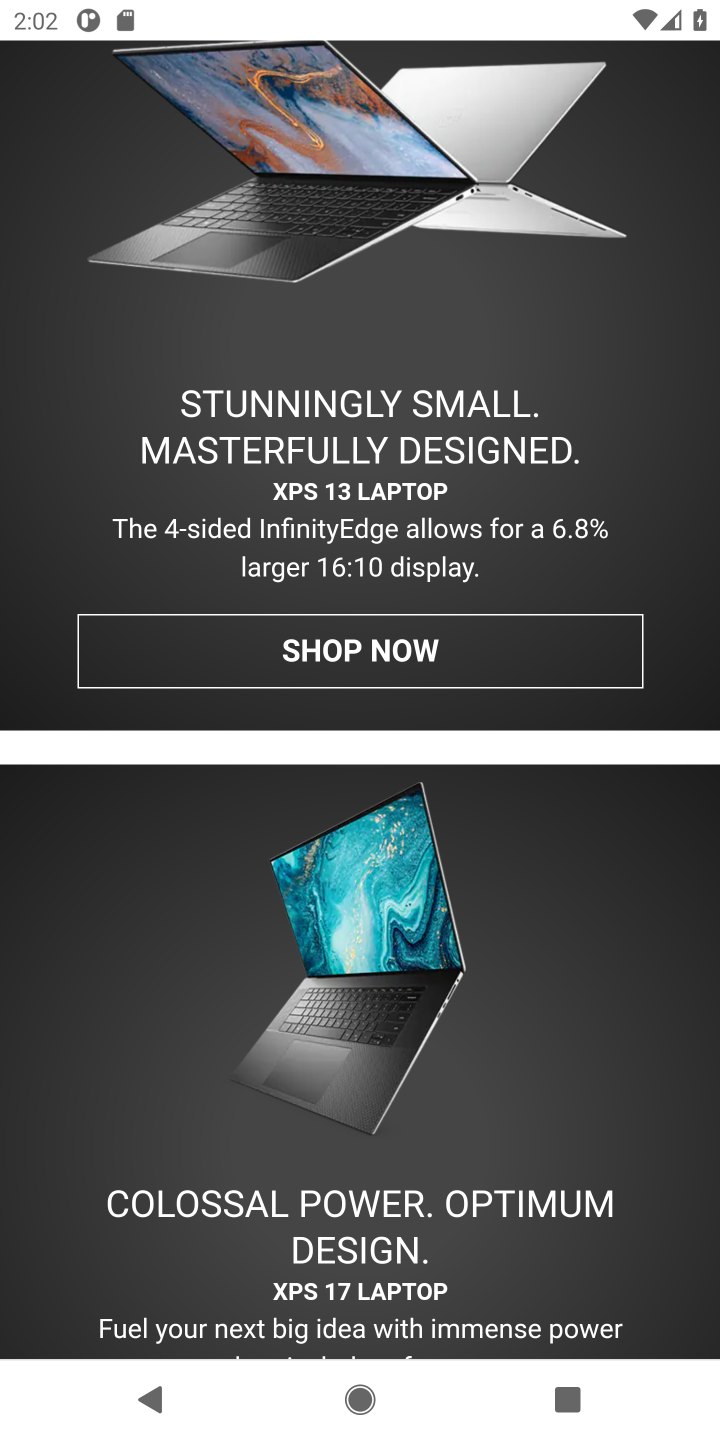
Step 29: click (323, 639)
Your task to perform on an android device: Clear the cart on costco.com. Search for "dell xps" on costco.com, select the first entry, and add it to the cart. Image 30: 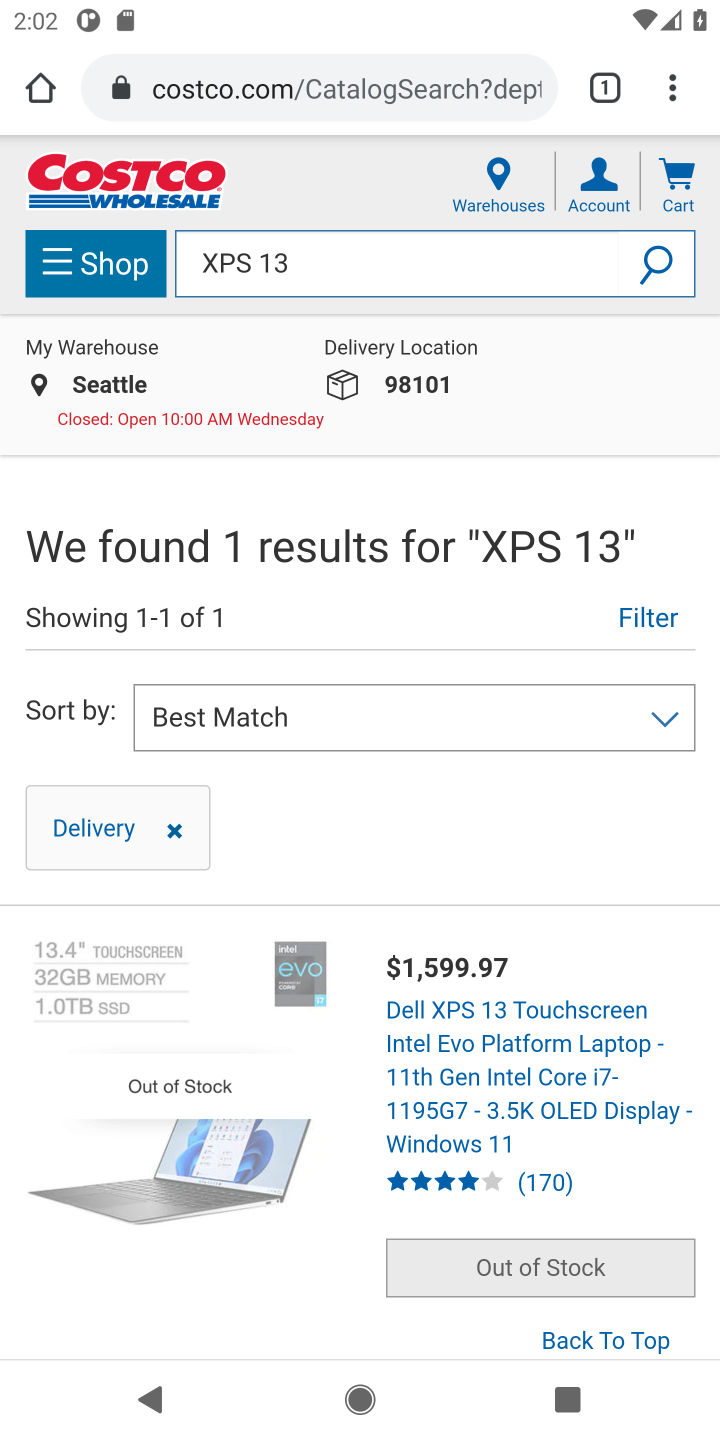
Step 30: task complete